Your task to perform on an android device: move an email to a new category in the gmail app Image 0: 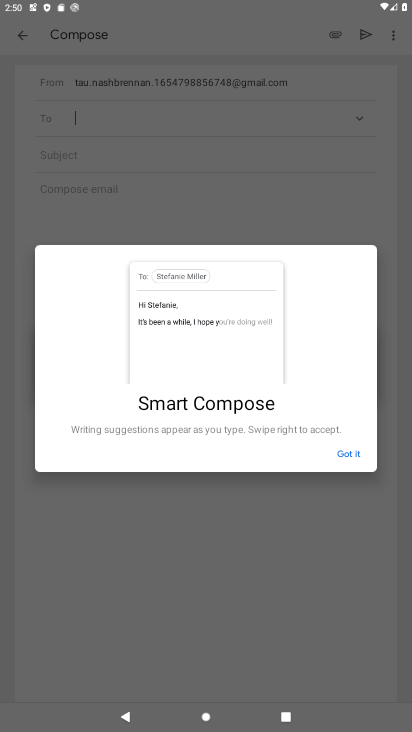
Step 0: press home button
Your task to perform on an android device: move an email to a new category in the gmail app Image 1: 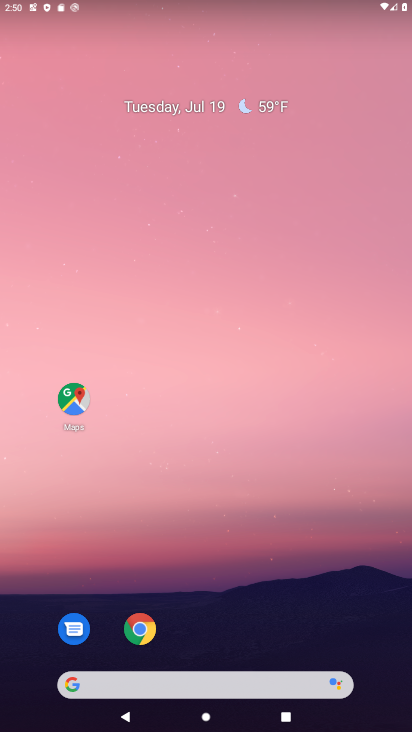
Step 1: drag from (220, 625) to (201, 246)
Your task to perform on an android device: move an email to a new category in the gmail app Image 2: 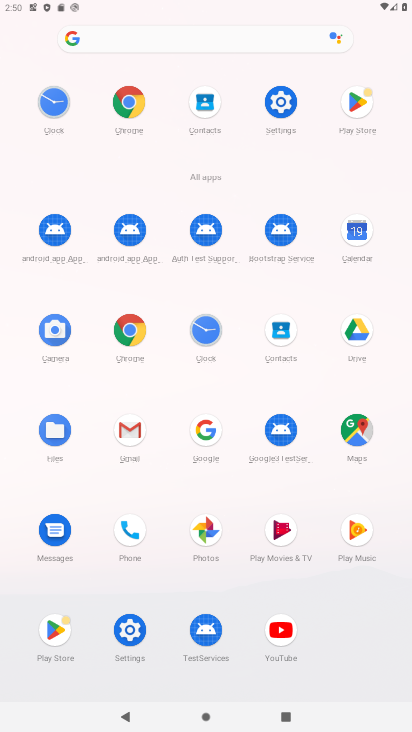
Step 2: click (133, 444)
Your task to perform on an android device: move an email to a new category in the gmail app Image 3: 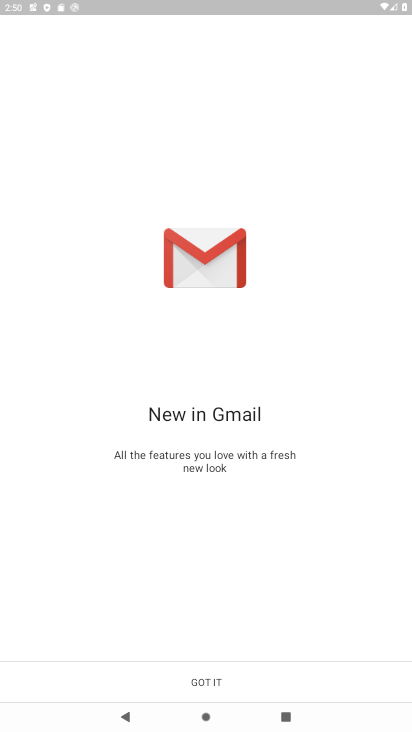
Step 3: click (228, 681)
Your task to perform on an android device: move an email to a new category in the gmail app Image 4: 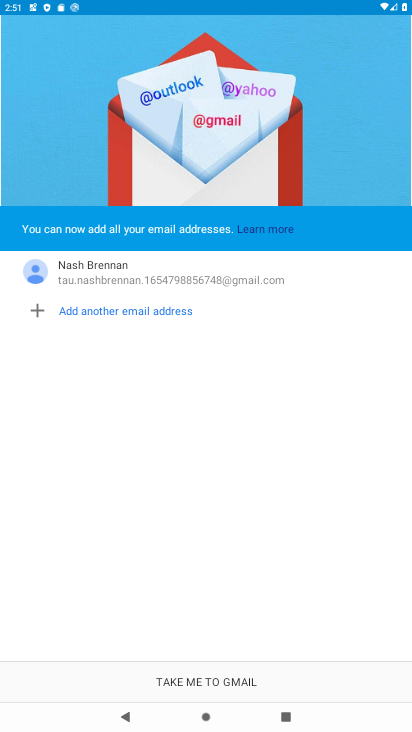
Step 4: click (228, 681)
Your task to perform on an android device: move an email to a new category in the gmail app Image 5: 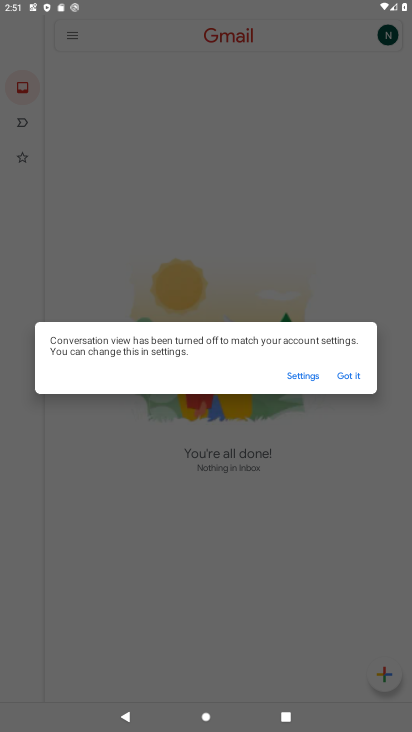
Step 5: click (355, 371)
Your task to perform on an android device: move an email to a new category in the gmail app Image 6: 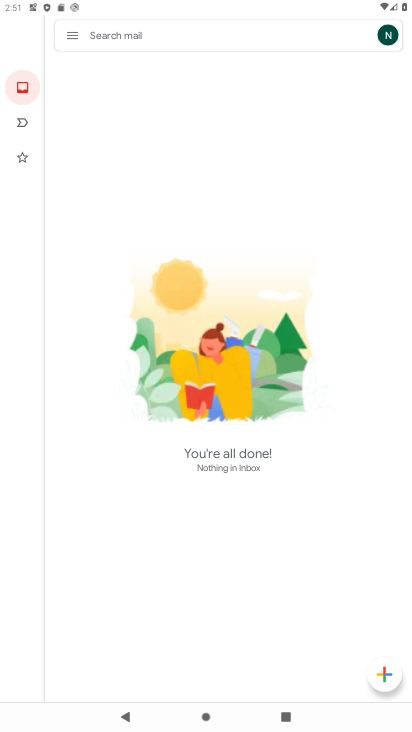
Step 6: task complete